Your task to perform on an android device: star an email in the gmail app Image 0: 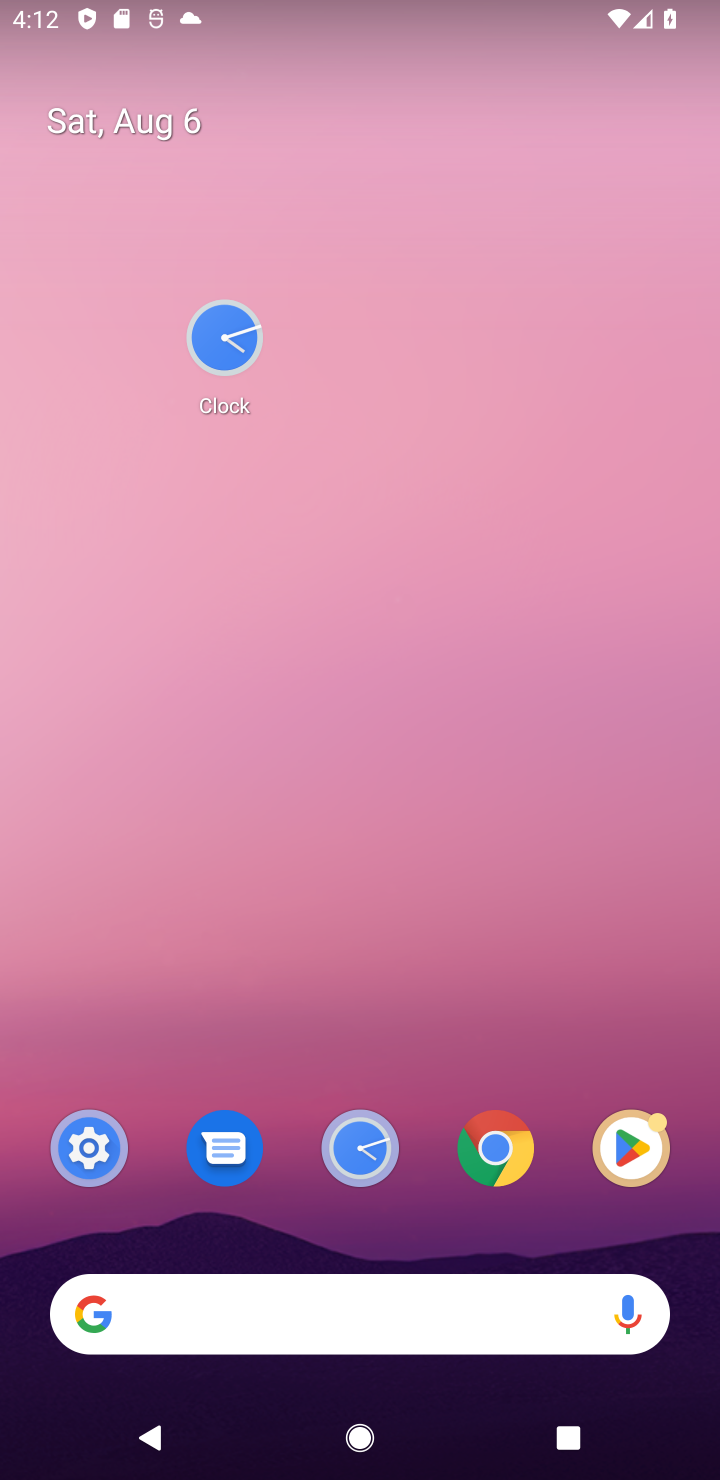
Step 0: drag from (306, 1126) to (463, 138)
Your task to perform on an android device: star an email in the gmail app Image 1: 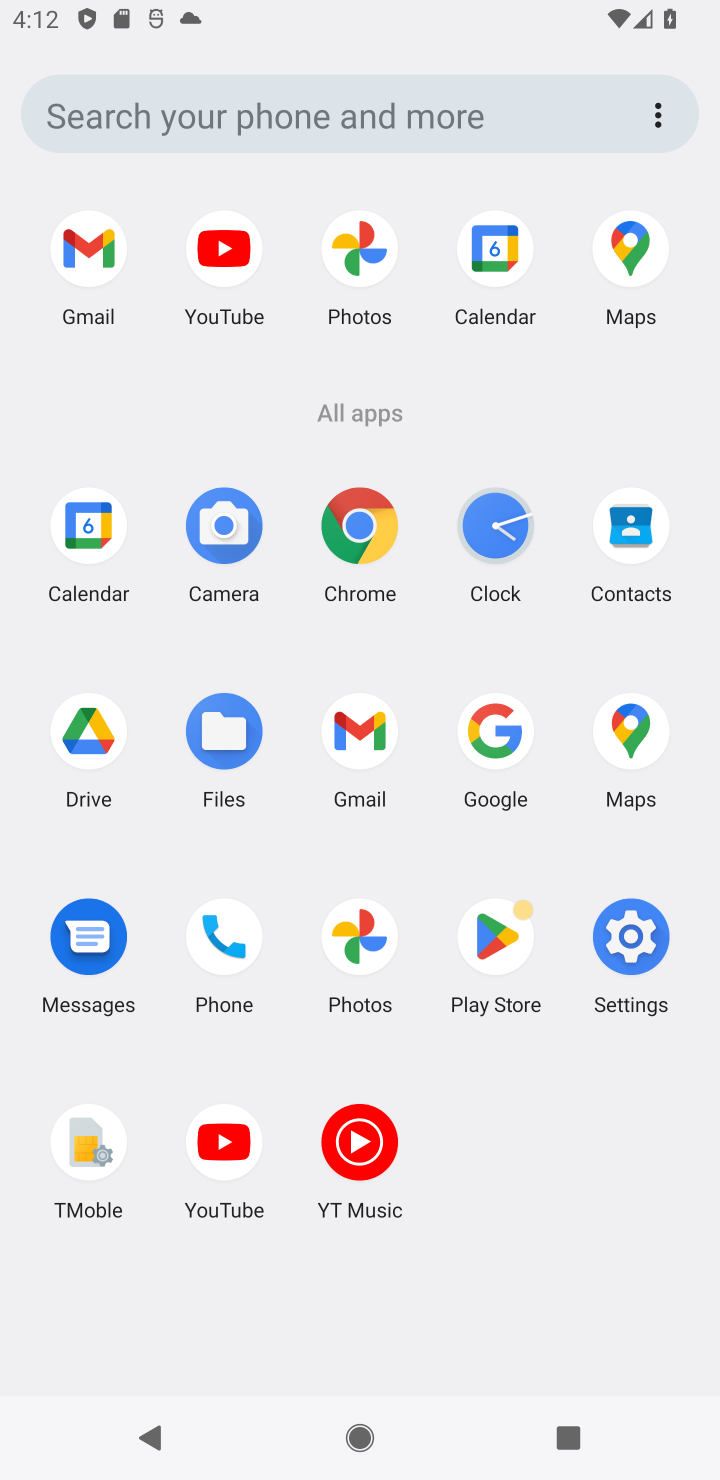
Step 1: click (350, 724)
Your task to perform on an android device: star an email in the gmail app Image 2: 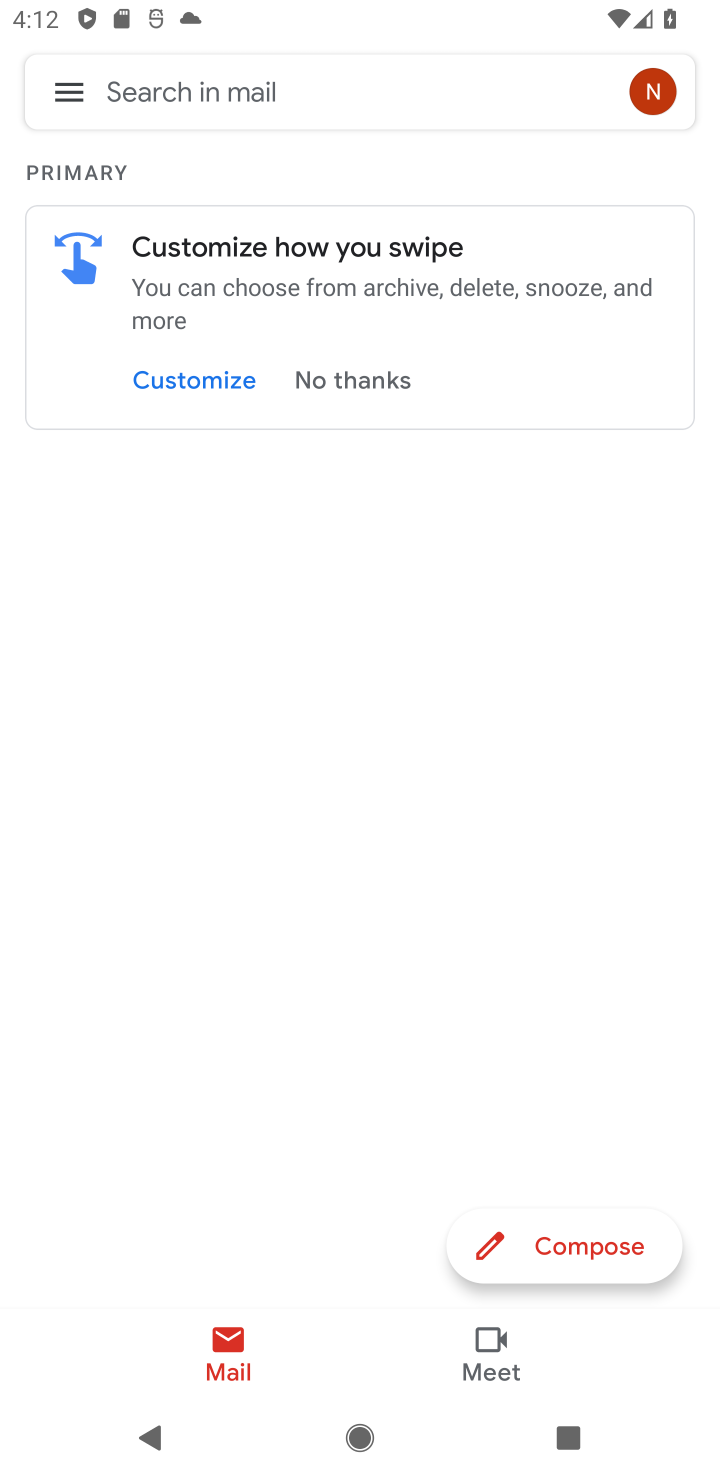
Step 2: click (353, 542)
Your task to perform on an android device: star an email in the gmail app Image 3: 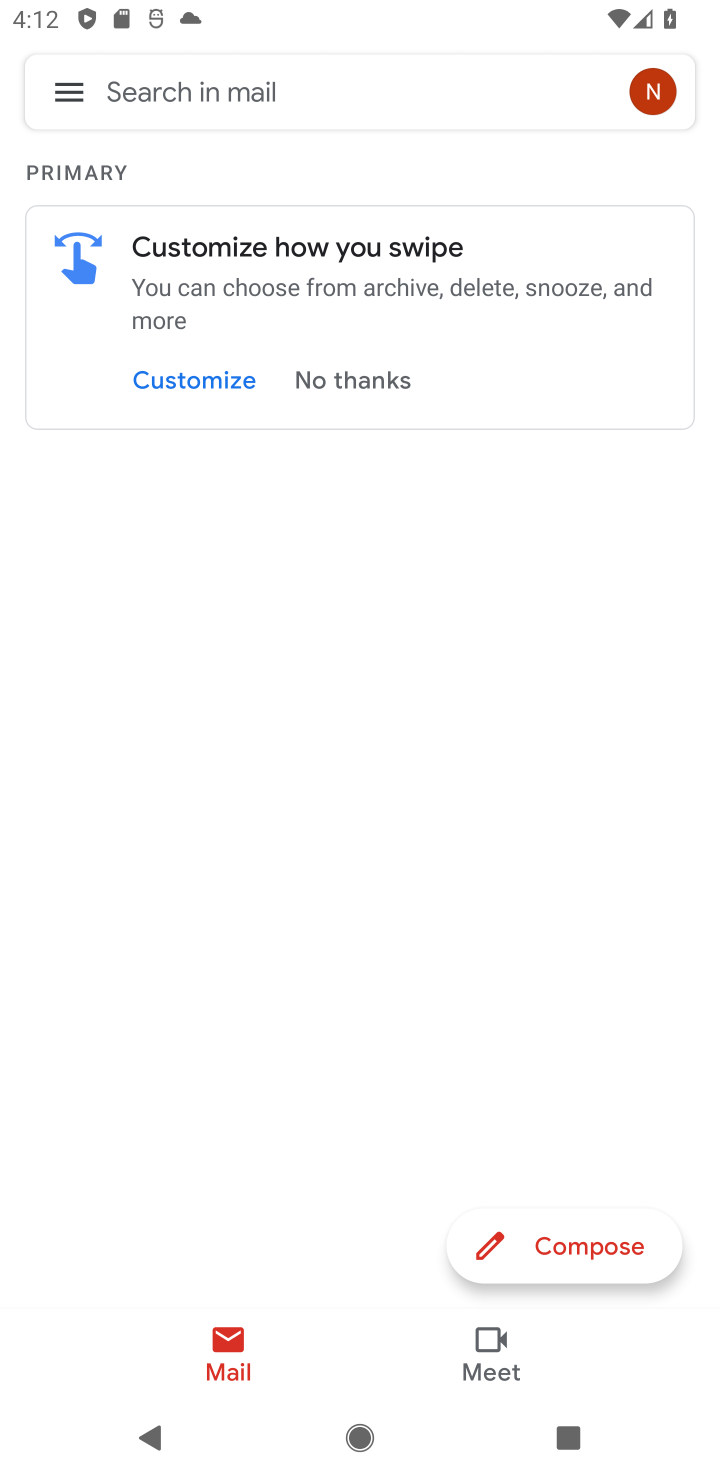
Step 3: click (66, 83)
Your task to perform on an android device: star an email in the gmail app Image 4: 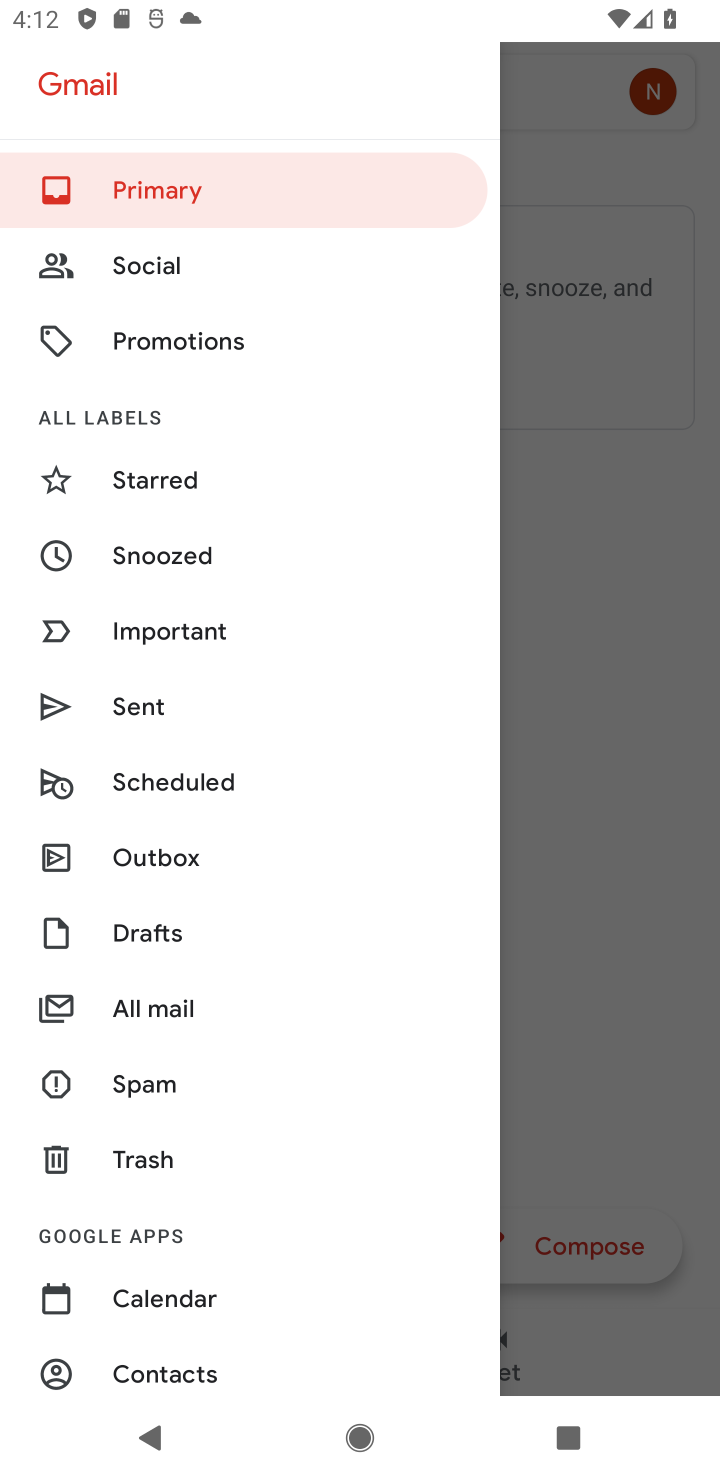
Step 4: click (147, 473)
Your task to perform on an android device: star an email in the gmail app Image 5: 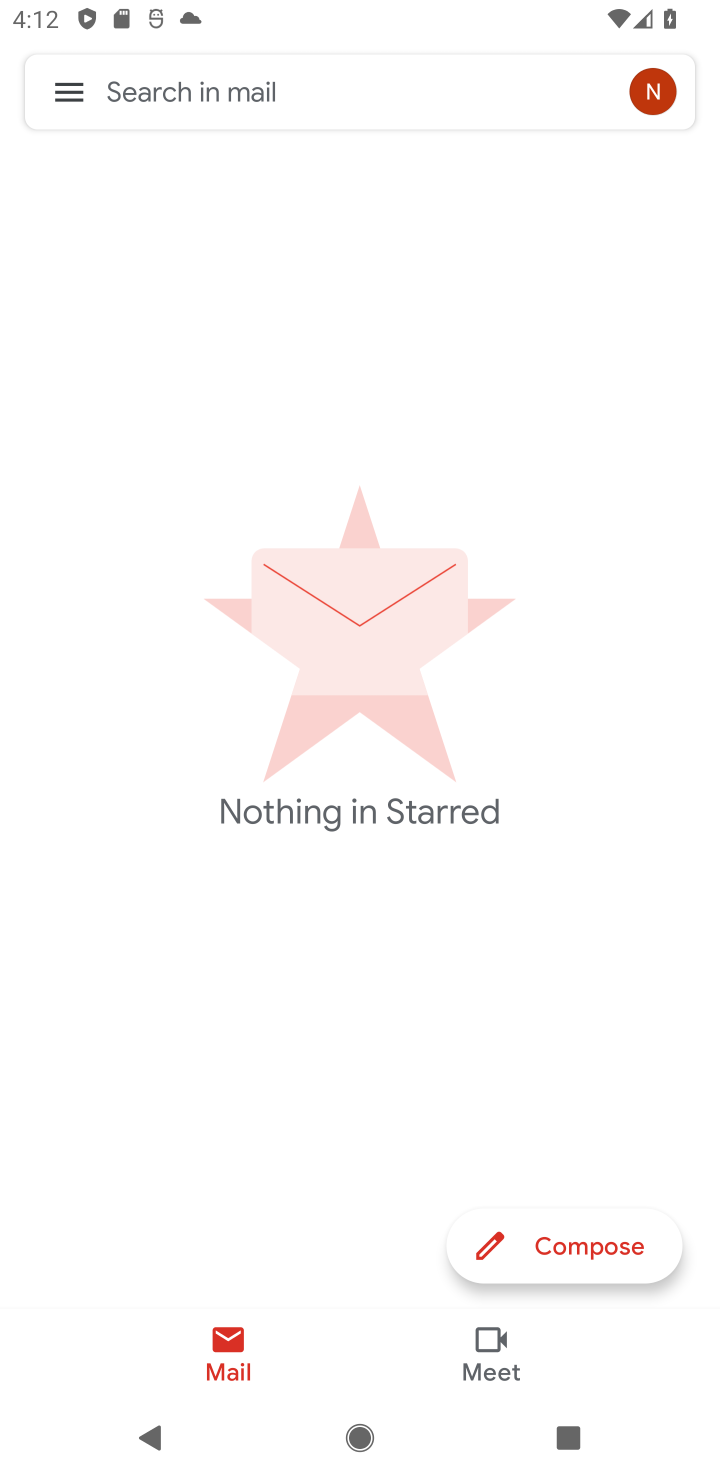
Step 5: drag from (305, 911) to (375, 466)
Your task to perform on an android device: star an email in the gmail app Image 6: 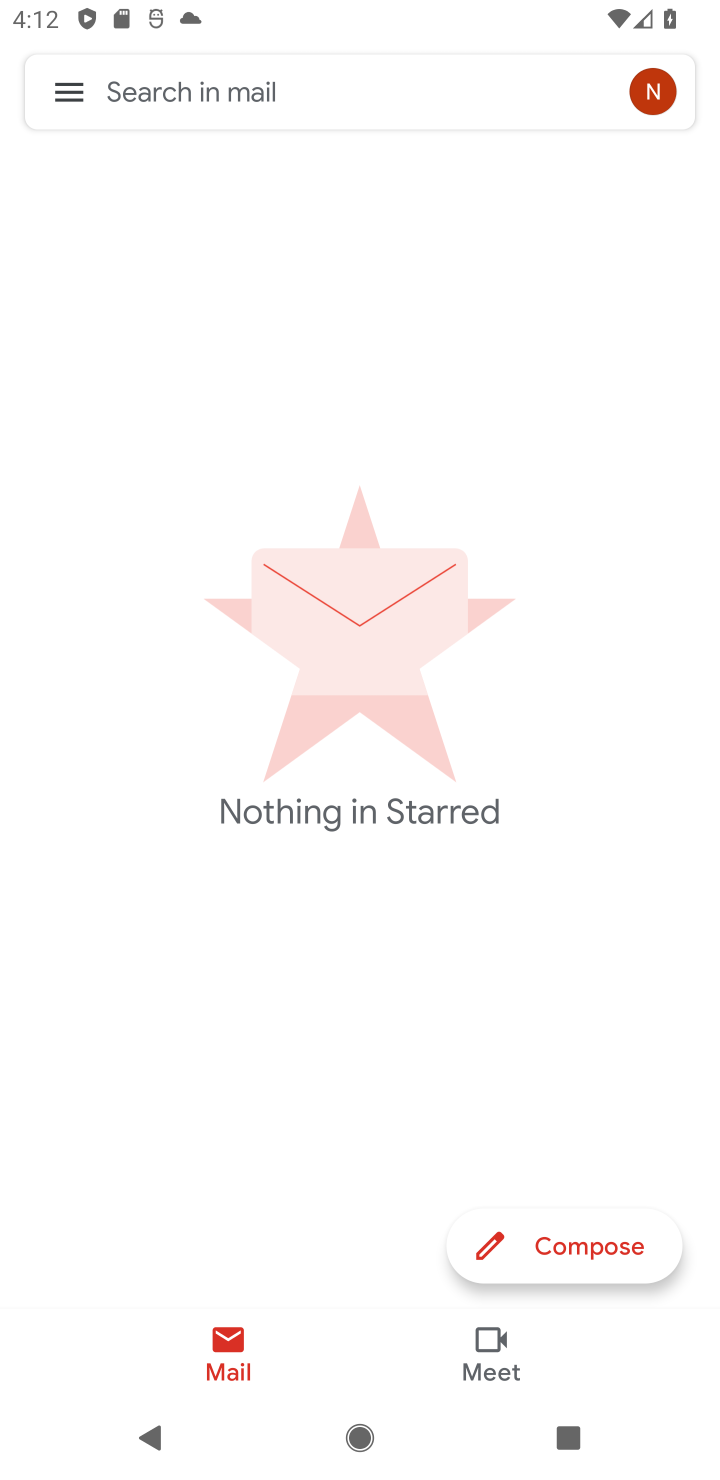
Step 6: click (53, 93)
Your task to perform on an android device: star an email in the gmail app Image 7: 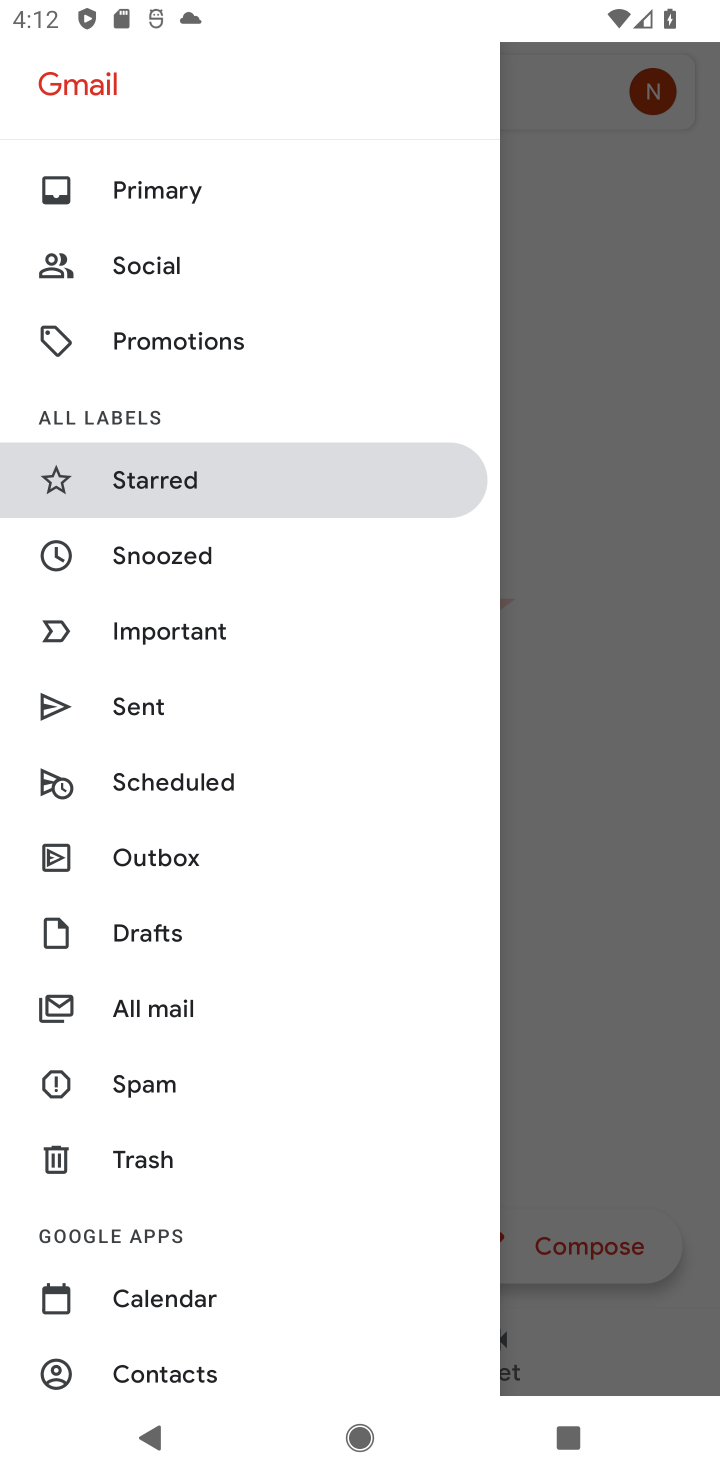
Step 7: click (151, 481)
Your task to perform on an android device: star an email in the gmail app Image 8: 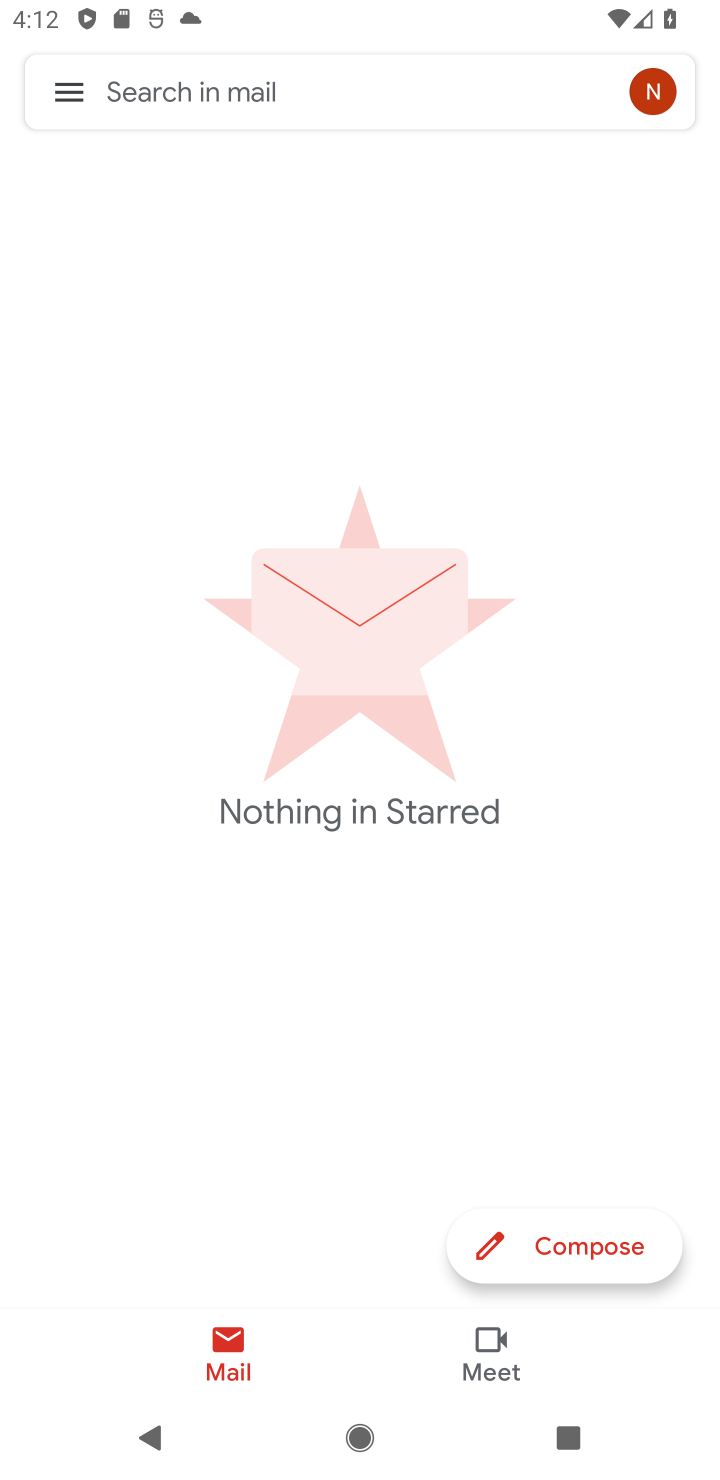
Step 8: task complete